Your task to perform on an android device: Open Google Maps and go to "Timeline" Image 0: 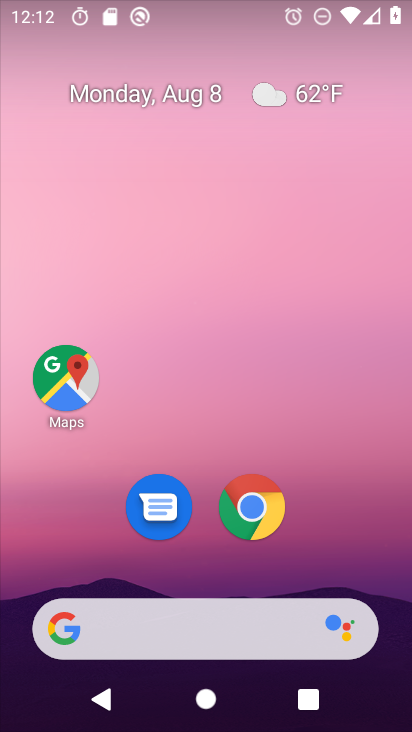
Step 0: drag from (368, 535) to (357, 2)
Your task to perform on an android device: Open Google Maps and go to "Timeline" Image 1: 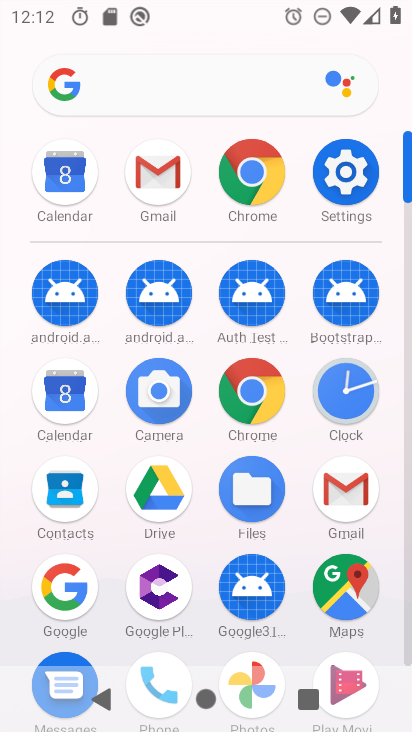
Step 1: click (351, 594)
Your task to perform on an android device: Open Google Maps and go to "Timeline" Image 2: 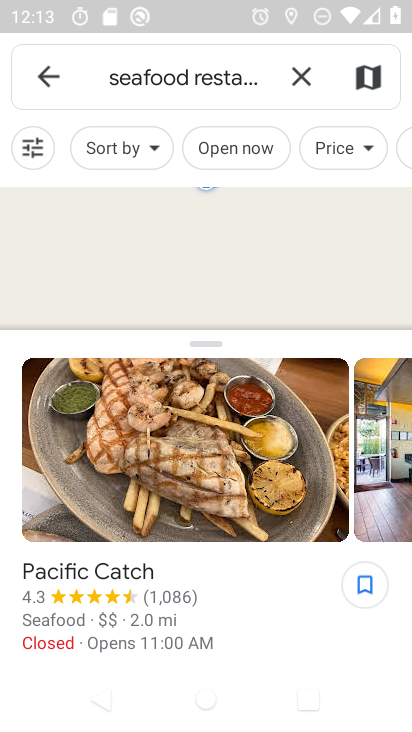
Step 2: click (32, 76)
Your task to perform on an android device: Open Google Maps and go to "Timeline" Image 3: 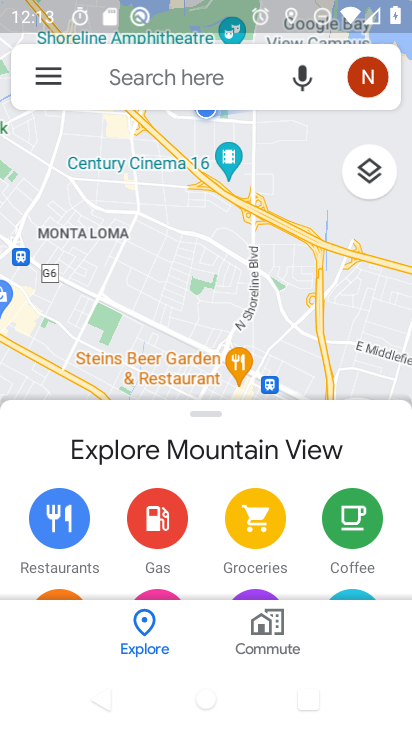
Step 3: click (42, 67)
Your task to perform on an android device: Open Google Maps and go to "Timeline" Image 4: 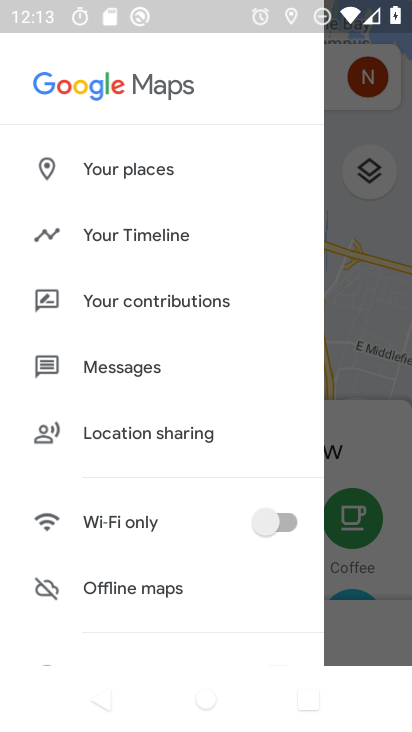
Step 4: click (175, 247)
Your task to perform on an android device: Open Google Maps and go to "Timeline" Image 5: 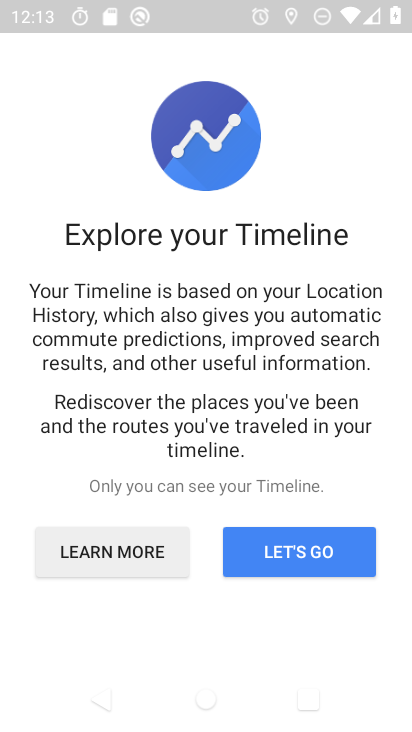
Step 5: click (292, 545)
Your task to perform on an android device: Open Google Maps and go to "Timeline" Image 6: 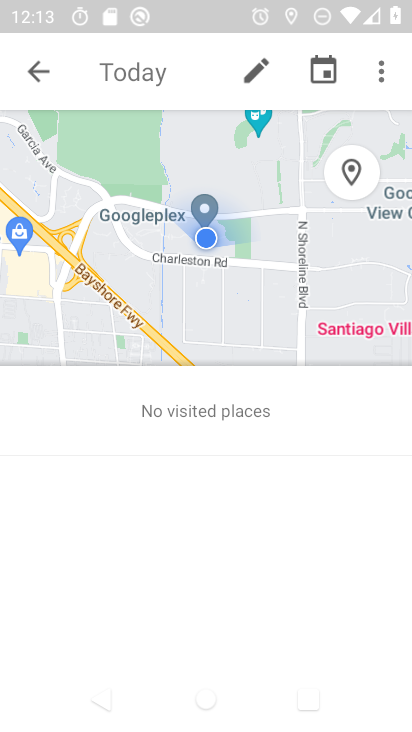
Step 6: task complete